Your task to perform on an android device: Go to notification settings Image 0: 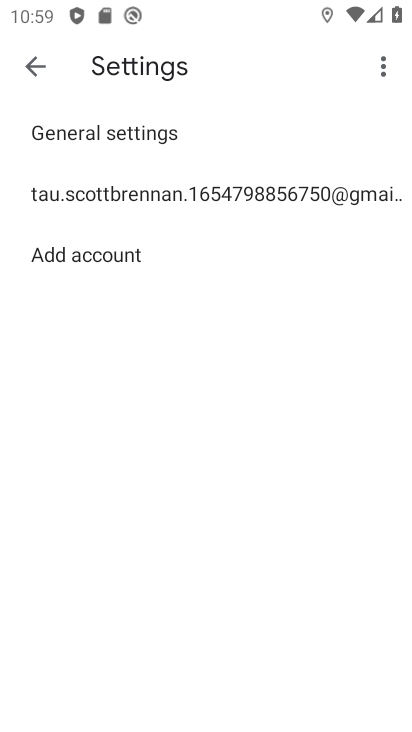
Step 0: drag from (347, 574) to (314, 365)
Your task to perform on an android device: Go to notification settings Image 1: 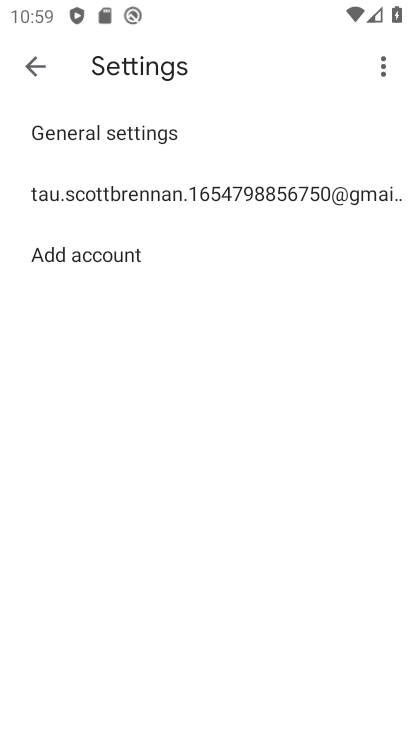
Step 1: press home button
Your task to perform on an android device: Go to notification settings Image 2: 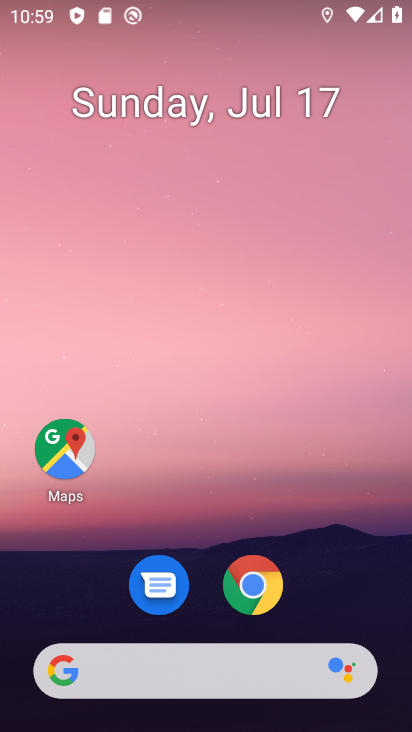
Step 2: drag from (322, 554) to (344, 49)
Your task to perform on an android device: Go to notification settings Image 3: 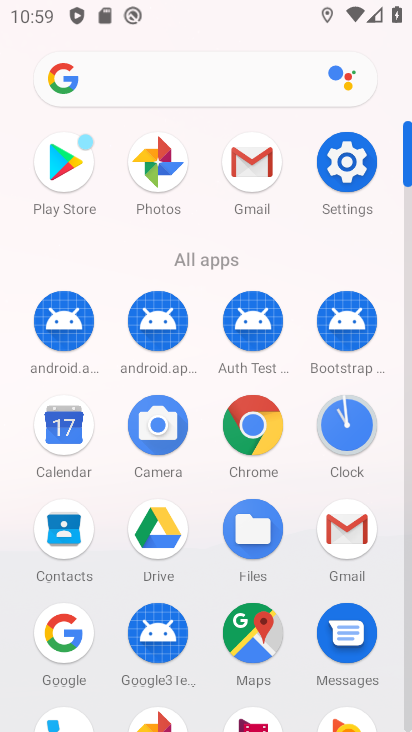
Step 3: click (351, 159)
Your task to perform on an android device: Go to notification settings Image 4: 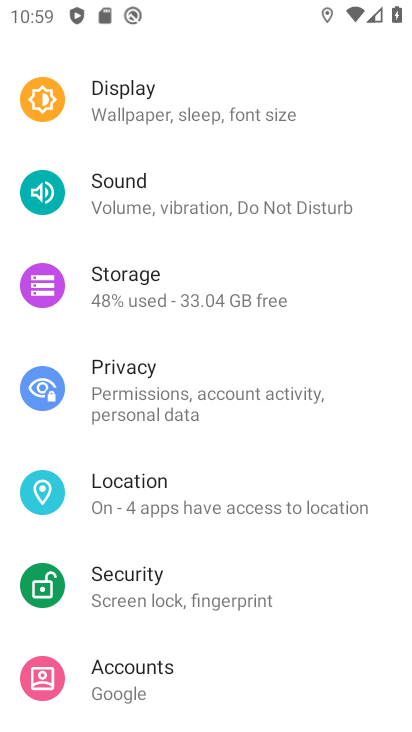
Step 4: drag from (225, 312) to (220, 581)
Your task to perform on an android device: Go to notification settings Image 5: 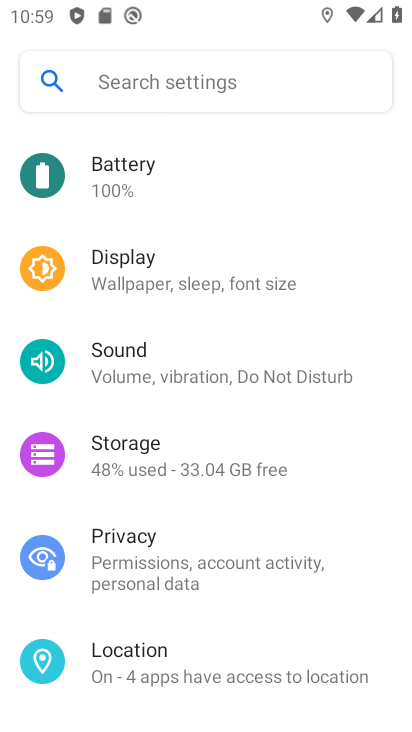
Step 5: drag from (209, 232) to (224, 552)
Your task to perform on an android device: Go to notification settings Image 6: 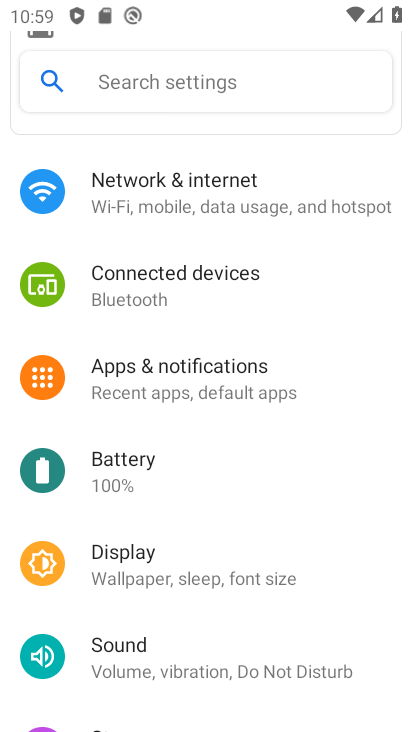
Step 6: click (205, 377)
Your task to perform on an android device: Go to notification settings Image 7: 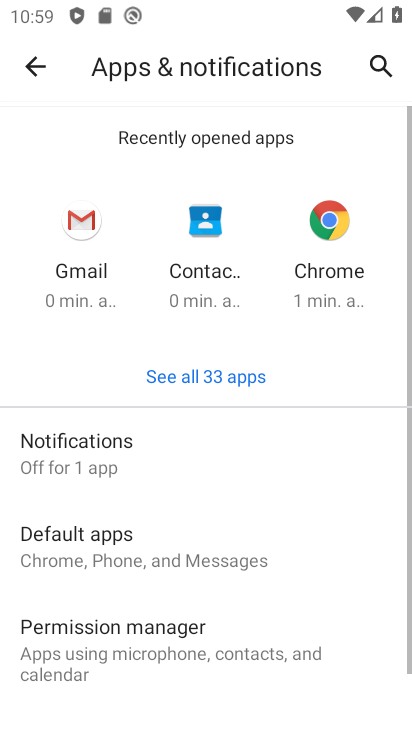
Step 7: click (111, 450)
Your task to perform on an android device: Go to notification settings Image 8: 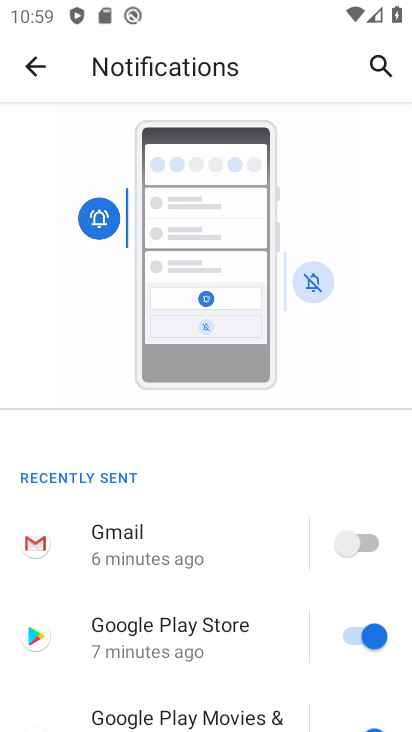
Step 8: task complete